Your task to perform on an android device: Open the calendar and show me this week's events? Image 0: 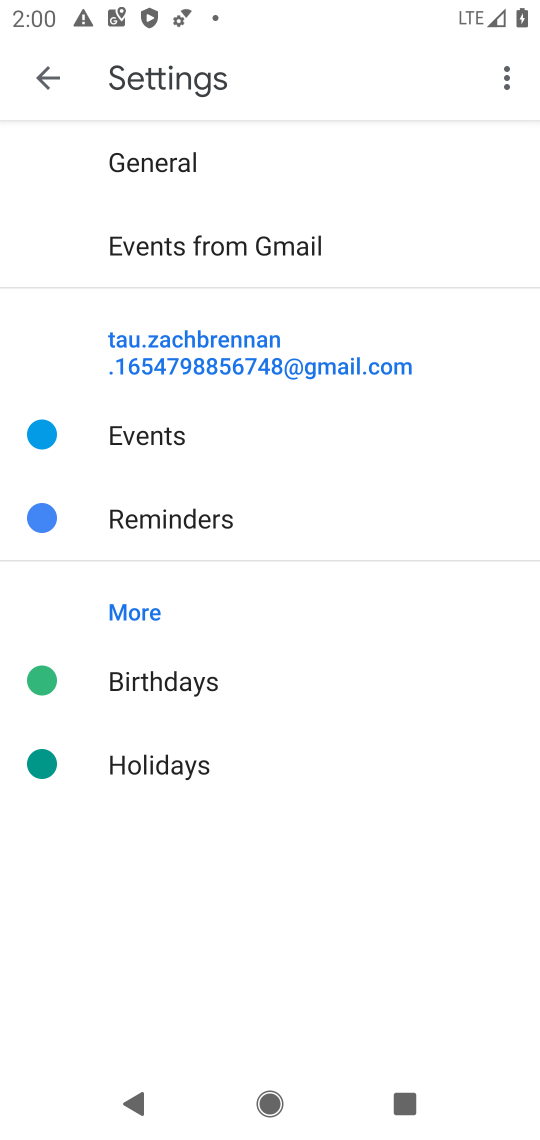
Step 0: press home button
Your task to perform on an android device: Open the calendar and show me this week's events? Image 1: 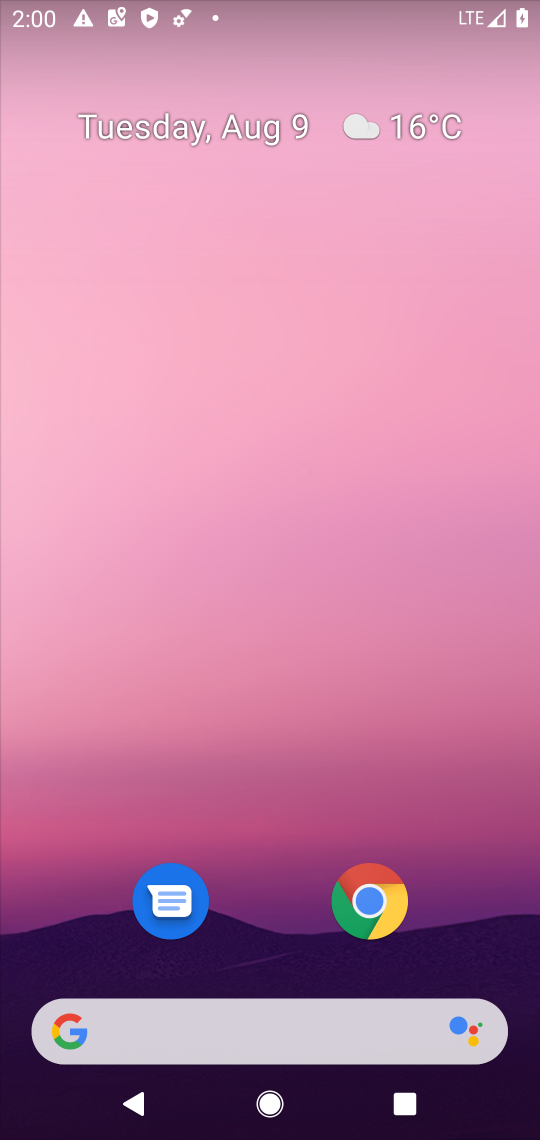
Step 1: drag from (508, 951) to (426, 243)
Your task to perform on an android device: Open the calendar and show me this week's events? Image 2: 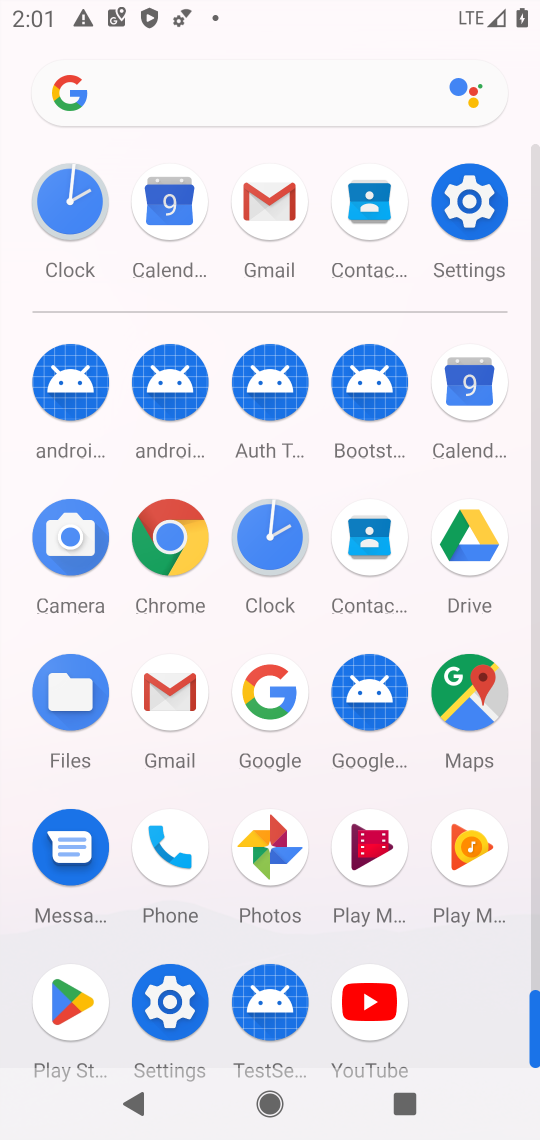
Step 2: click (466, 387)
Your task to perform on an android device: Open the calendar and show me this week's events? Image 3: 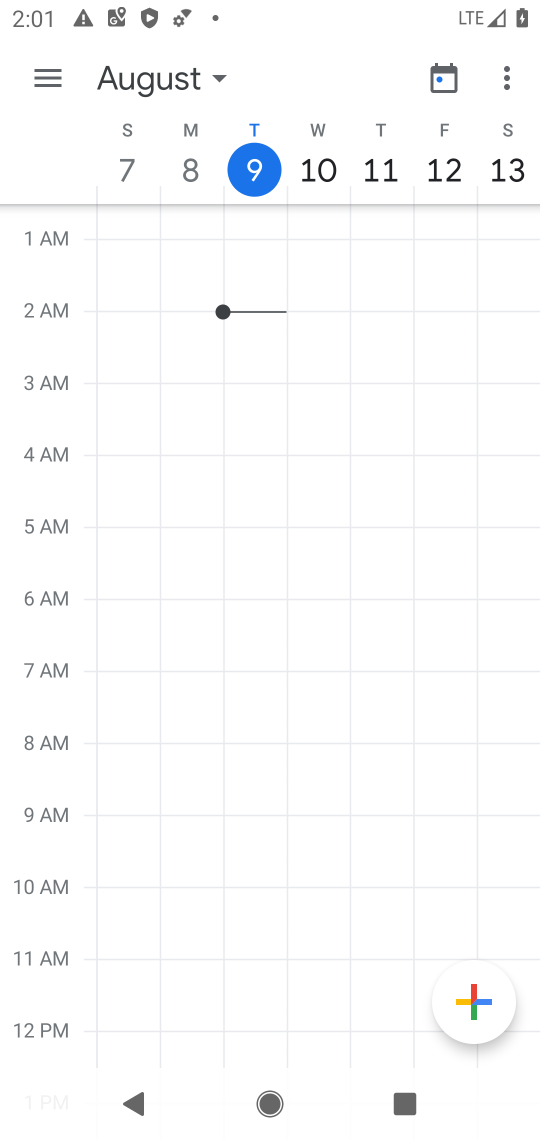
Step 3: task complete